Your task to perform on an android device: Open settings Image 0: 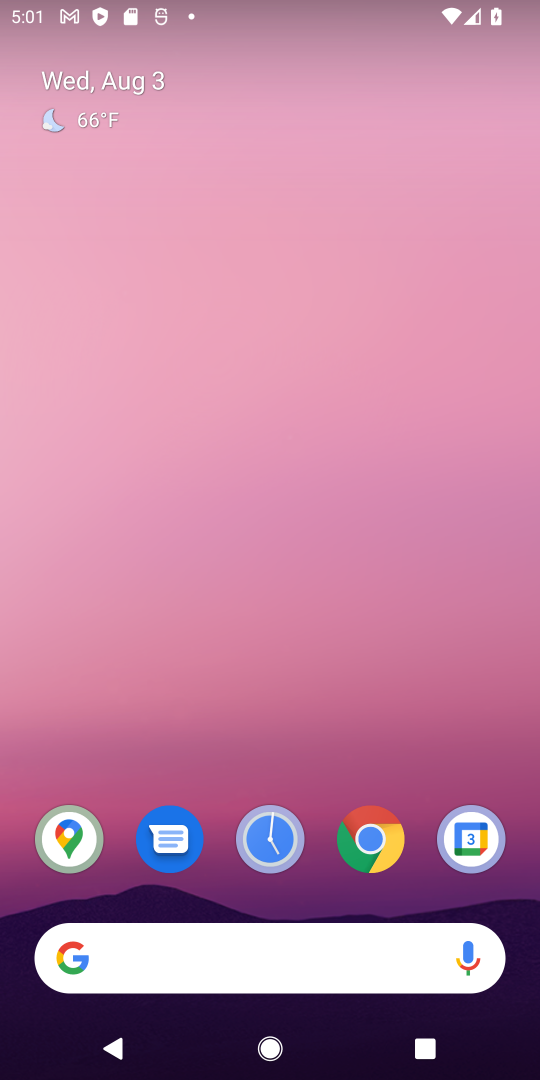
Step 0: drag from (275, 429) to (307, 18)
Your task to perform on an android device: Open settings Image 1: 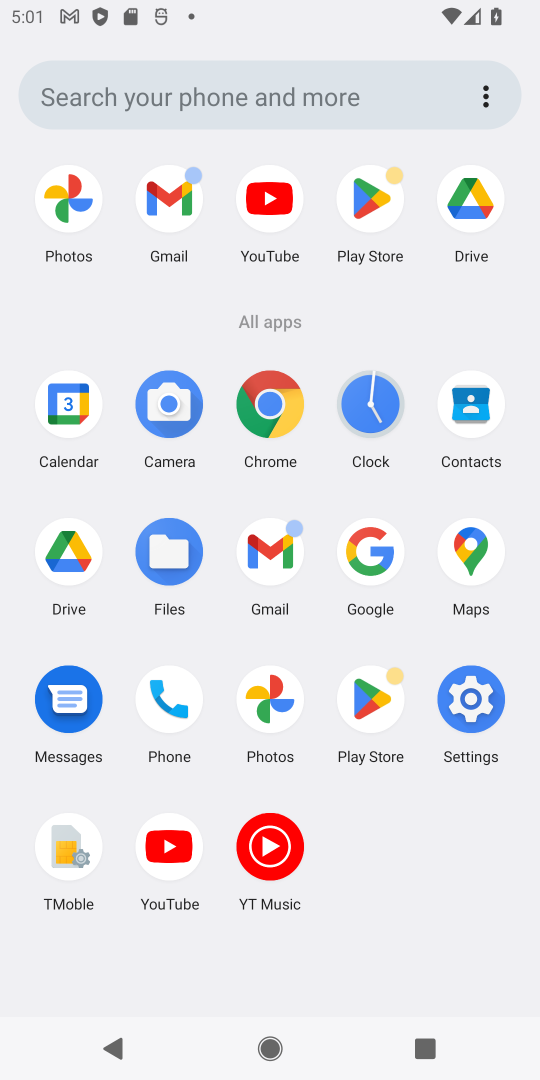
Step 1: click (471, 702)
Your task to perform on an android device: Open settings Image 2: 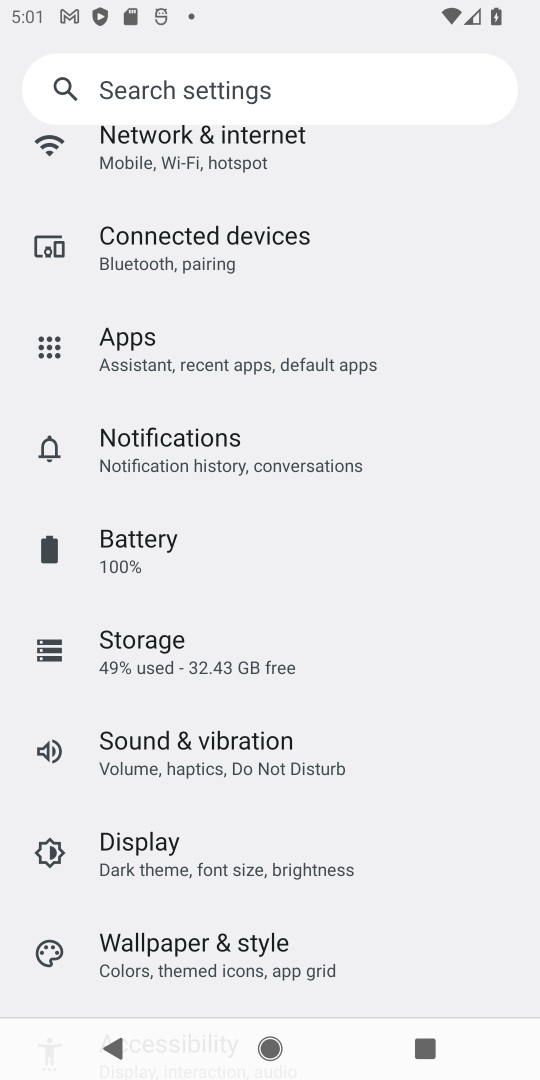
Step 2: task complete